Your task to perform on an android device: Go to wifi settings Image 0: 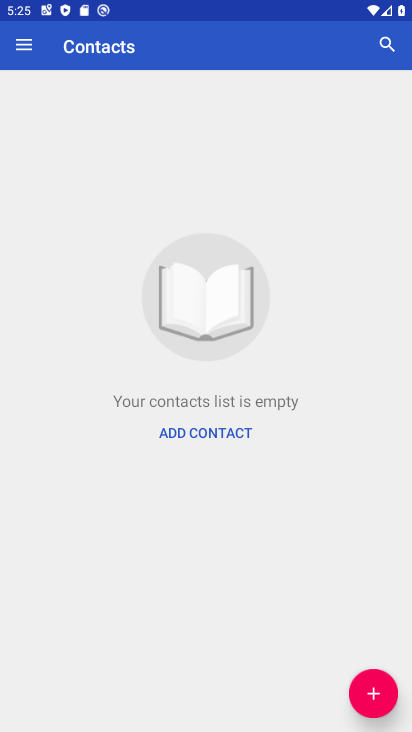
Step 0: press home button
Your task to perform on an android device: Go to wifi settings Image 1: 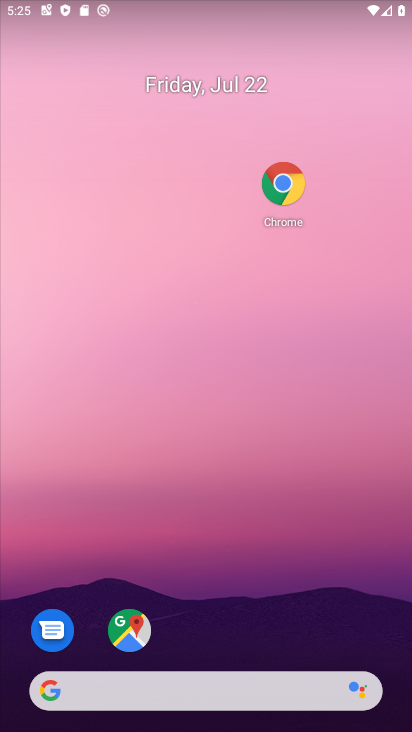
Step 1: drag from (223, 624) to (141, 134)
Your task to perform on an android device: Go to wifi settings Image 2: 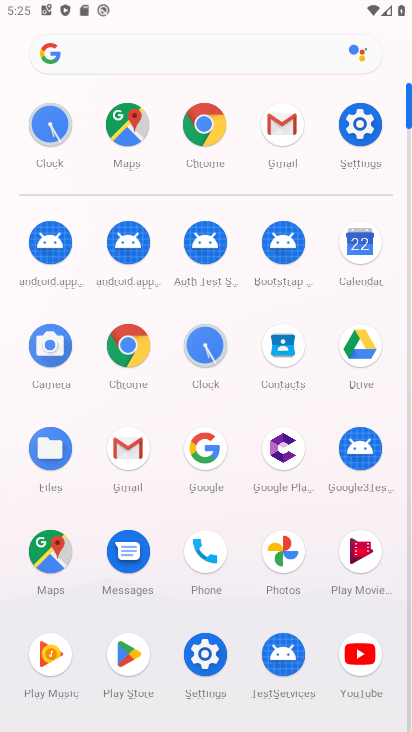
Step 2: click (191, 625)
Your task to perform on an android device: Go to wifi settings Image 3: 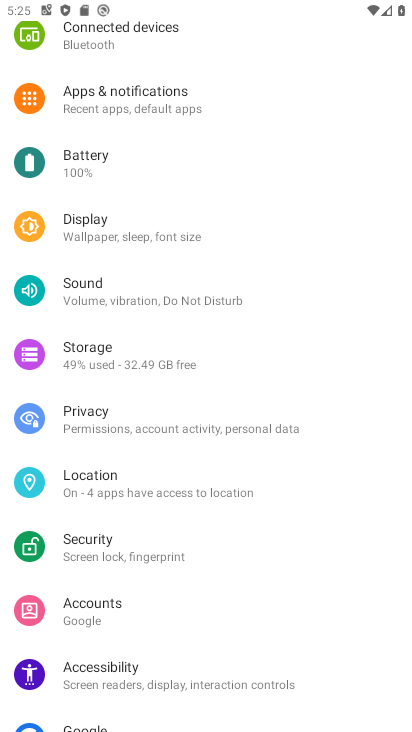
Step 3: press back button
Your task to perform on an android device: Go to wifi settings Image 4: 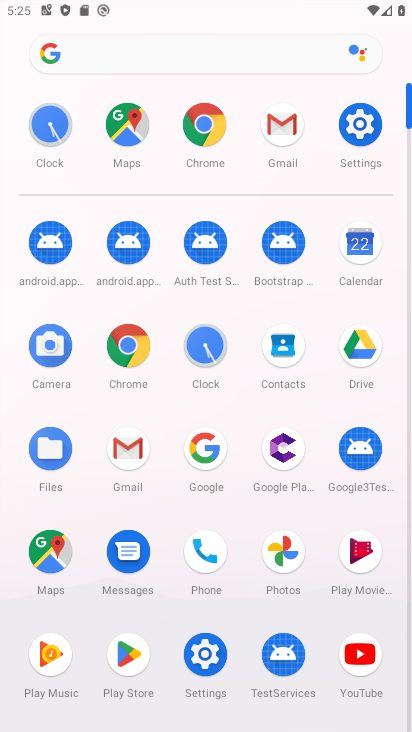
Step 4: click (355, 135)
Your task to perform on an android device: Go to wifi settings Image 5: 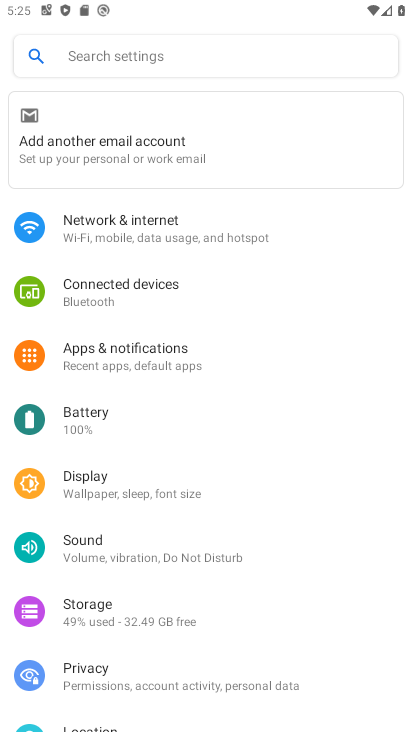
Step 5: click (121, 235)
Your task to perform on an android device: Go to wifi settings Image 6: 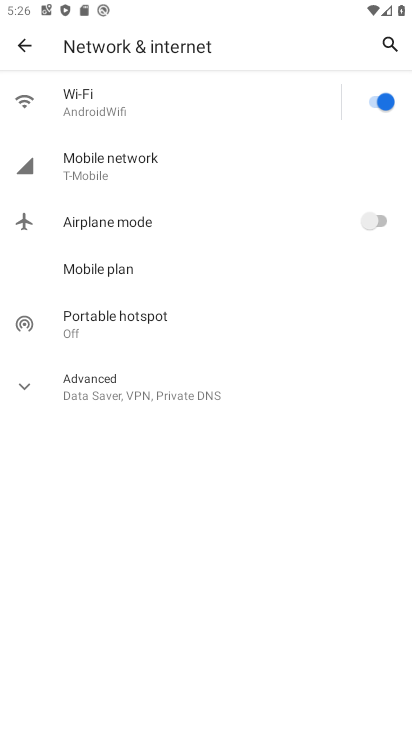
Step 6: task complete